Your task to perform on an android device: See recent photos Image 0: 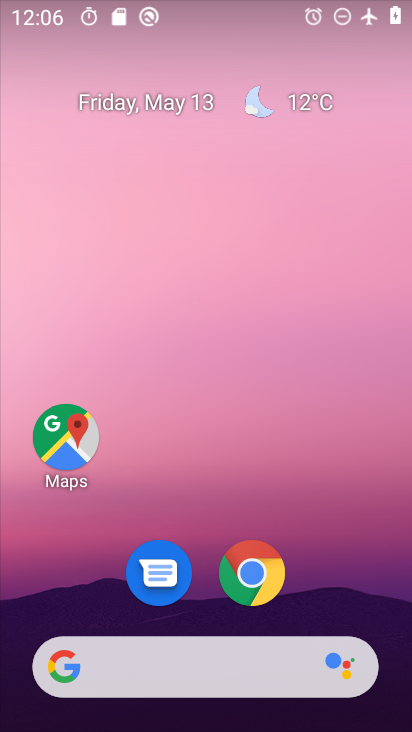
Step 0: drag from (401, 674) to (351, 344)
Your task to perform on an android device: See recent photos Image 1: 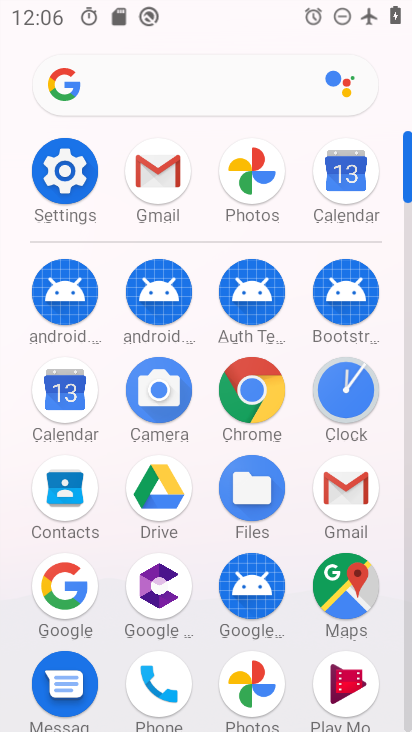
Step 1: click (255, 686)
Your task to perform on an android device: See recent photos Image 2: 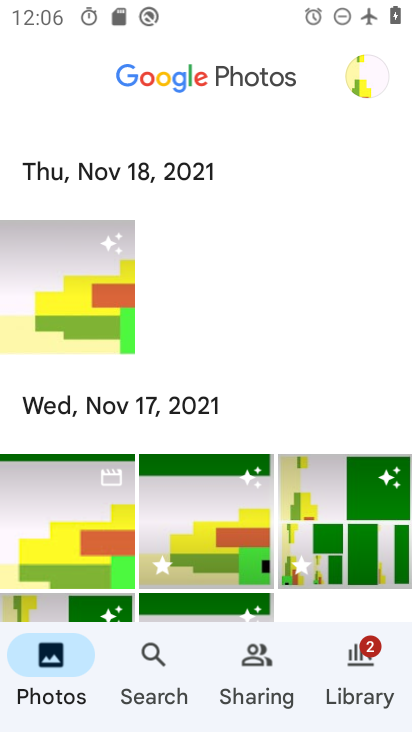
Step 2: click (68, 277)
Your task to perform on an android device: See recent photos Image 3: 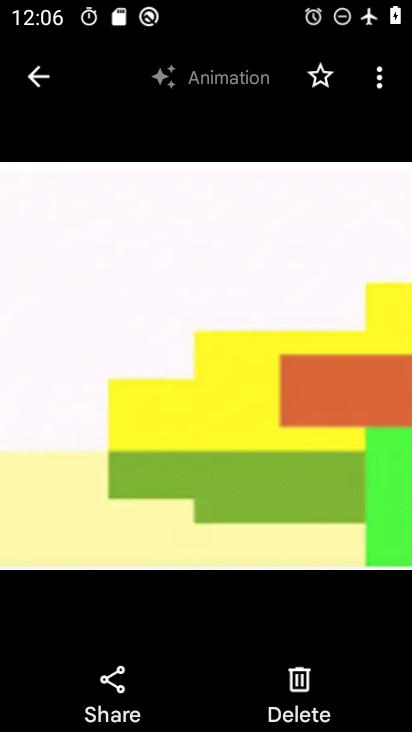
Step 3: click (46, 84)
Your task to perform on an android device: See recent photos Image 4: 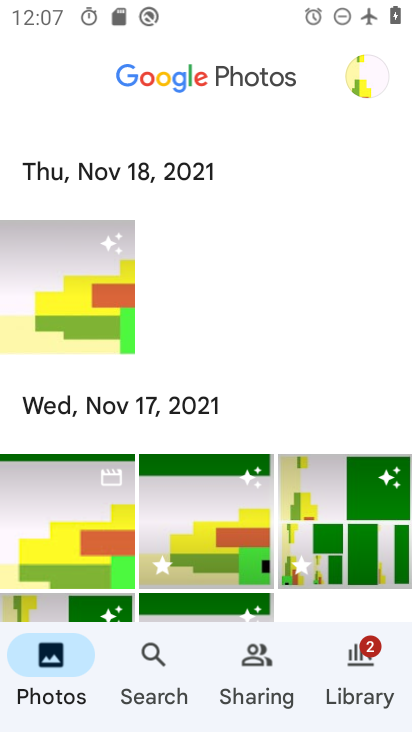
Step 4: task complete